Your task to perform on an android device: install app "Flipkart Online Shopping App" Image 0: 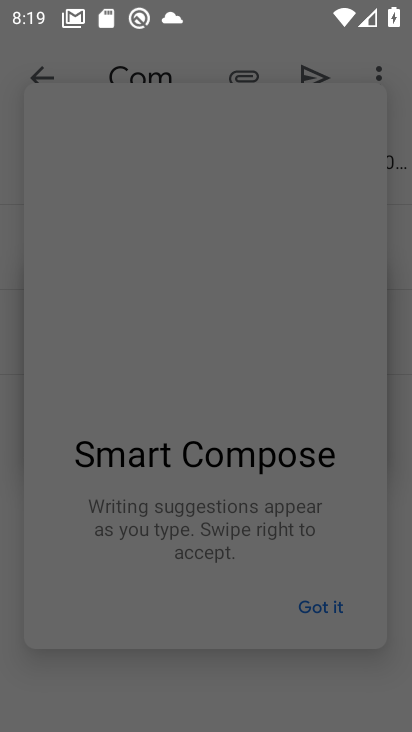
Step 0: press home button
Your task to perform on an android device: install app "Flipkart Online Shopping App" Image 1: 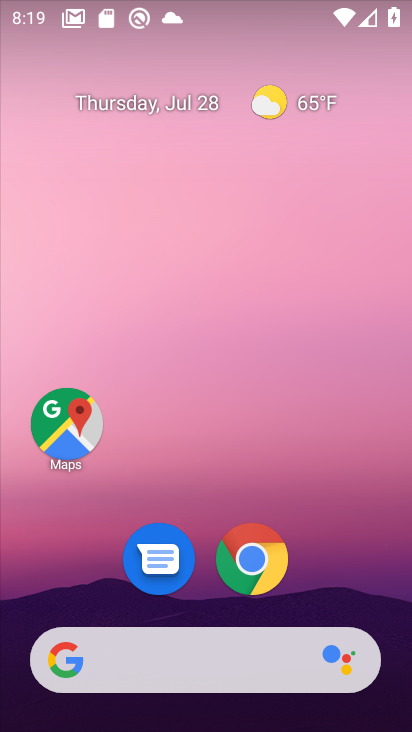
Step 1: drag from (202, 4) to (316, 38)
Your task to perform on an android device: install app "Flipkart Online Shopping App" Image 2: 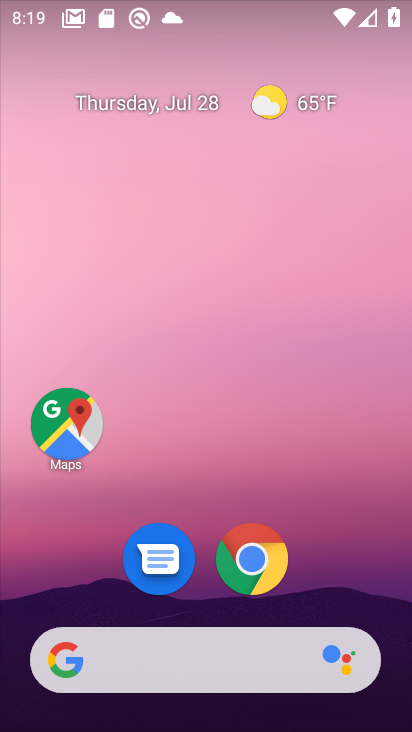
Step 2: drag from (199, 591) to (215, 12)
Your task to perform on an android device: install app "Flipkart Online Shopping App" Image 3: 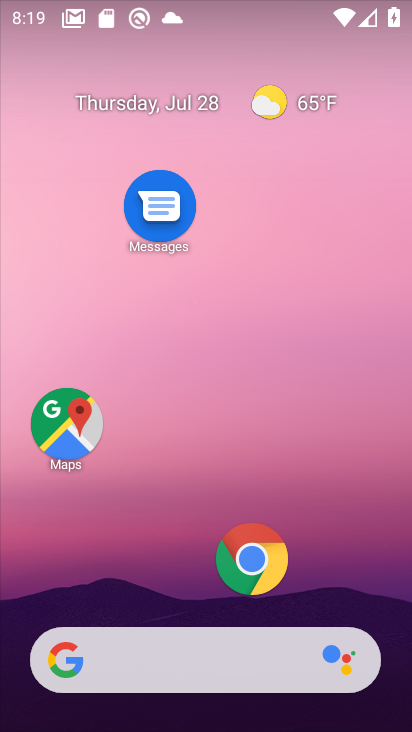
Step 3: drag from (163, 609) to (225, 28)
Your task to perform on an android device: install app "Flipkart Online Shopping App" Image 4: 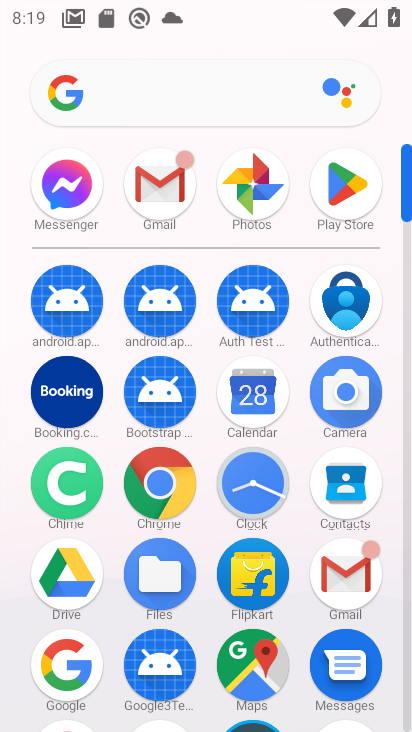
Step 4: click (351, 205)
Your task to perform on an android device: install app "Flipkart Online Shopping App" Image 5: 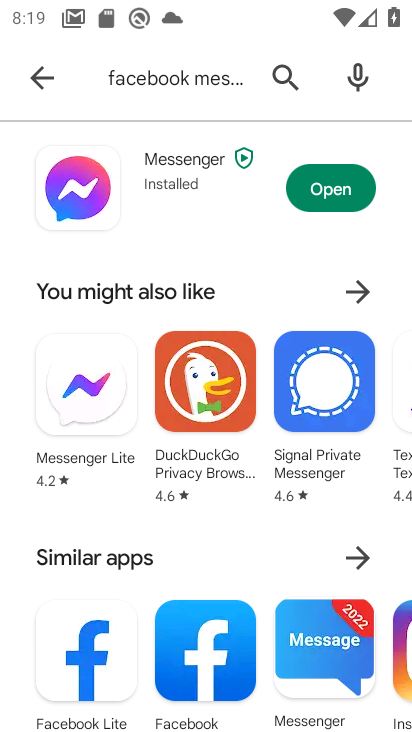
Step 5: click (208, 92)
Your task to perform on an android device: install app "Flipkart Online Shopping App" Image 6: 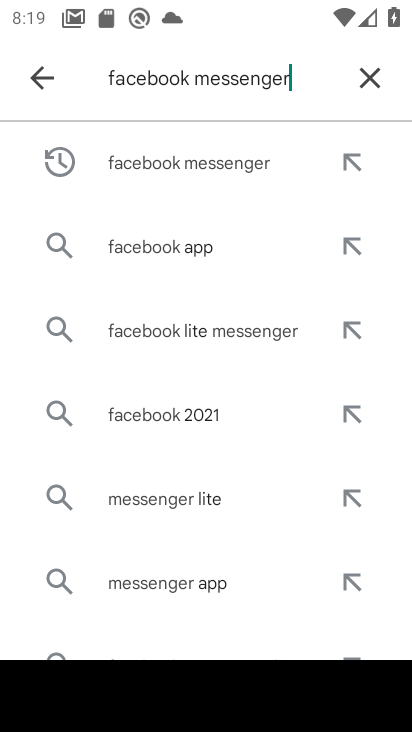
Step 6: click (365, 76)
Your task to perform on an android device: install app "Flipkart Online Shopping App" Image 7: 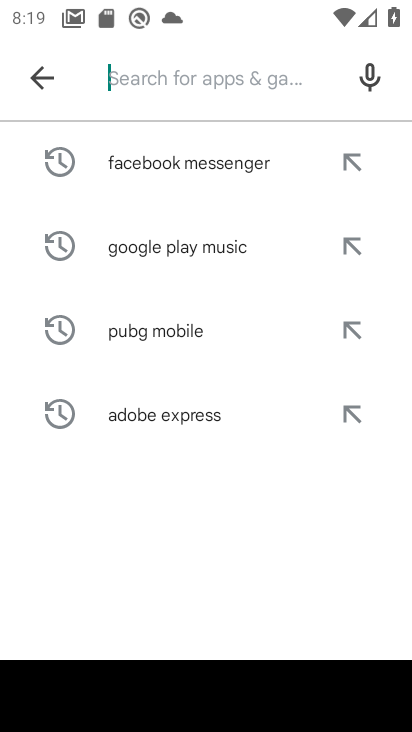
Step 7: type "flipkart"
Your task to perform on an android device: install app "Flipkart Online Shopping App" Image 8: 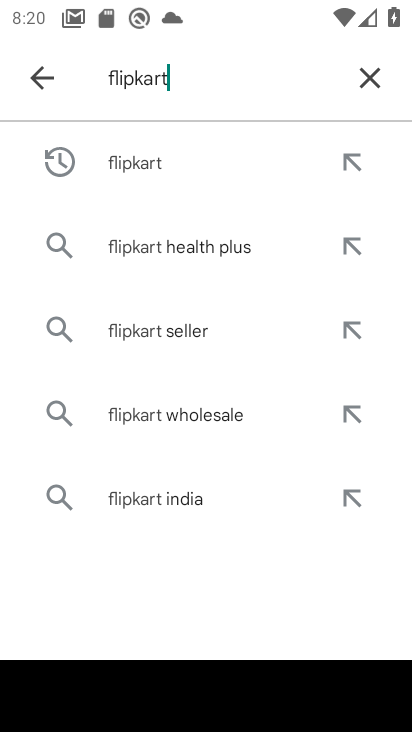
Step 8: click (140, 167)
Your task to perform on an android device: install app "Flipkart Online Shopping App" Image 9: 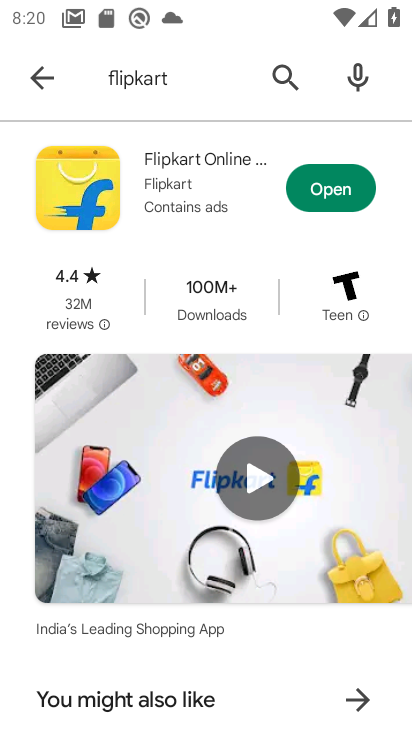
Step 9: click (165, 181)
Your task to perform on an android device: install app "Flipkart Online Shopping App" Image 10: 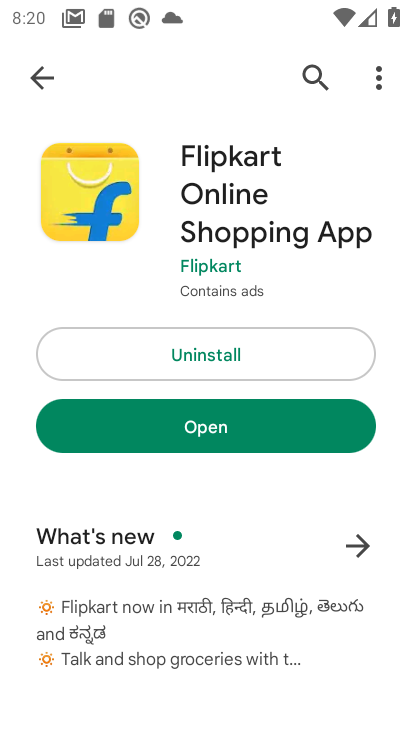
Step 10: task complete